Your task to perform on an android device: change text size in settings app Image 0: 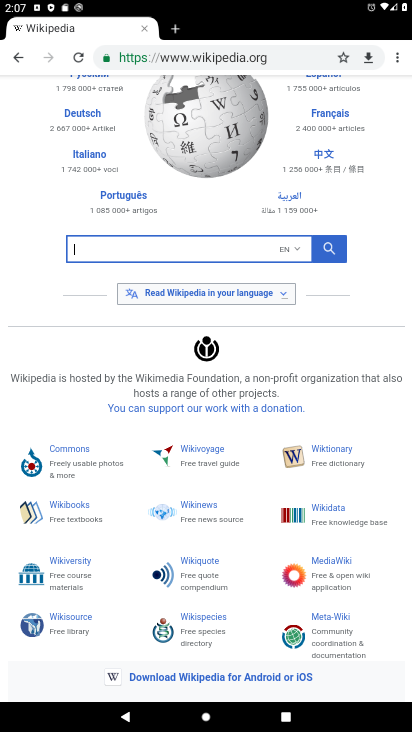
Step 0: press home button
Your task to perform on an android device: change text size in settings app Image 1: 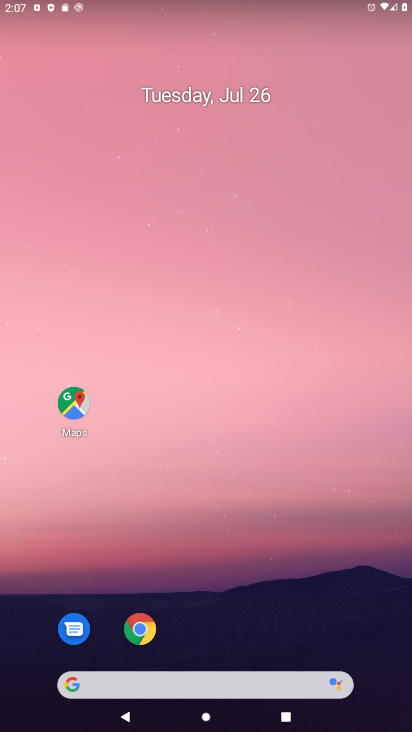
Step 1: drag from (387, 671) to (312, 325)
Your task to perform on an android device: change text size in settings app Image 2: 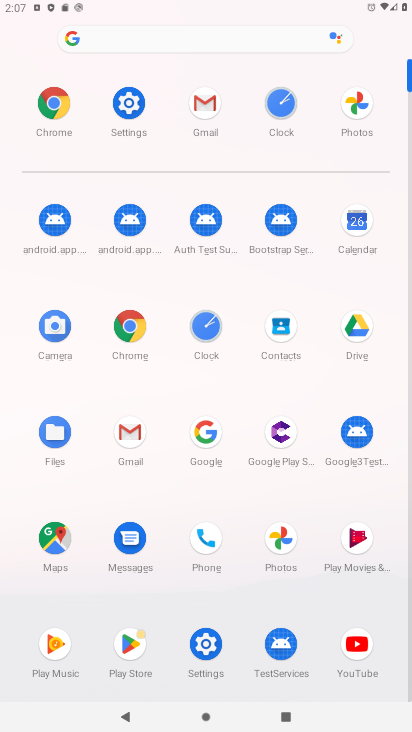
Step 2: click (208, 643)
Your task to perform on an android device: change text size in settings app Image 3: 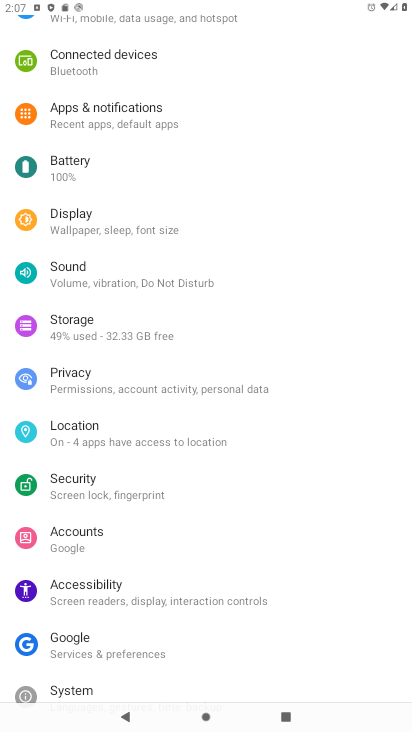
Step 3: click (87, 222)
Your task to perform on an android device: change text size in settings app Image 4: 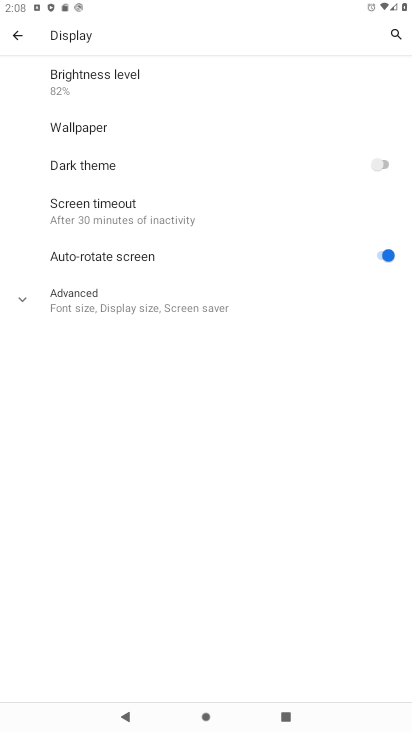
Step 4: click (22, 296)
Your task to perform on an android device: change text size in settings app Image 5: 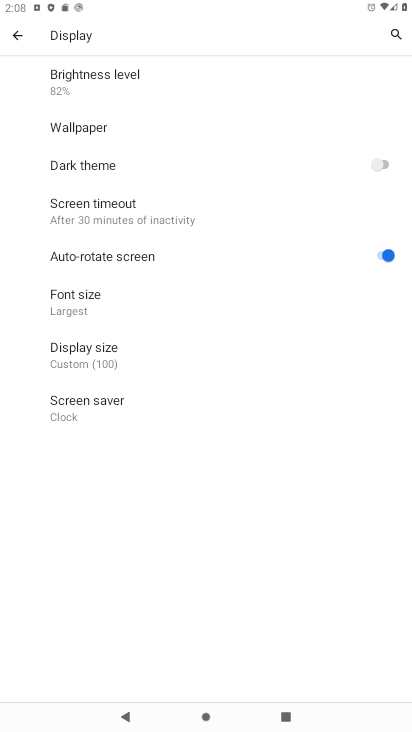
Step 5: click (73, 294)
Your task to perform on an android device: change text size in settings app Image 6: 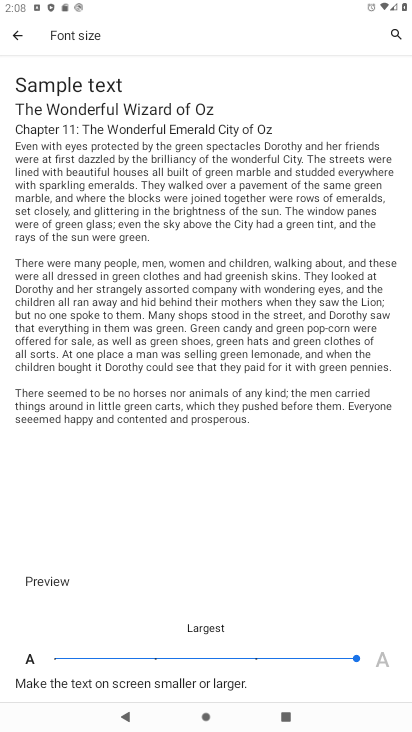
Step 6: click (257, 659)
Your task to perform on an android device: change text size in settings app Image 7: 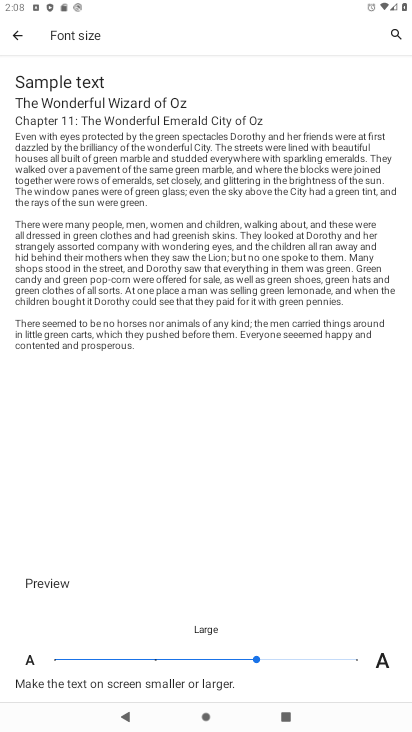
Step 7: task complete